Your task to perform on an android device: find photos in the google photos app Image 0: 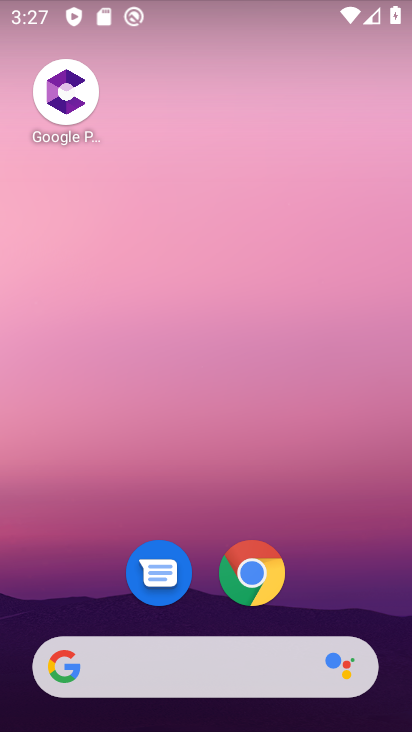
Step 0: click (301, 205)
Your task to perform on an android device: find photos in the google photos app Image 1: 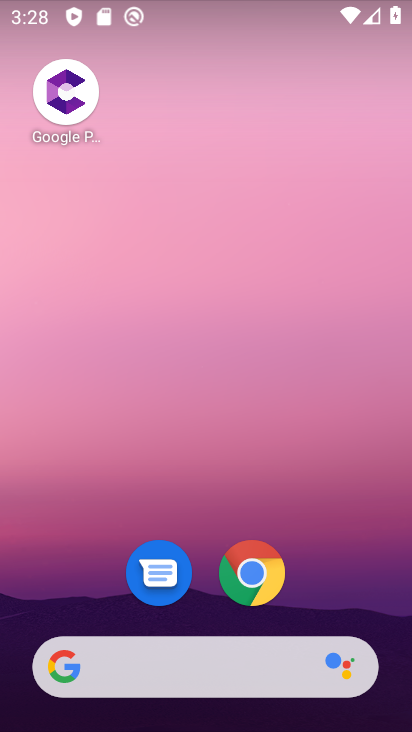
Step 1: drag from (340, 588) to (249, 278)
Your task to perform on an android device: find photos in the google photos app Image 2: 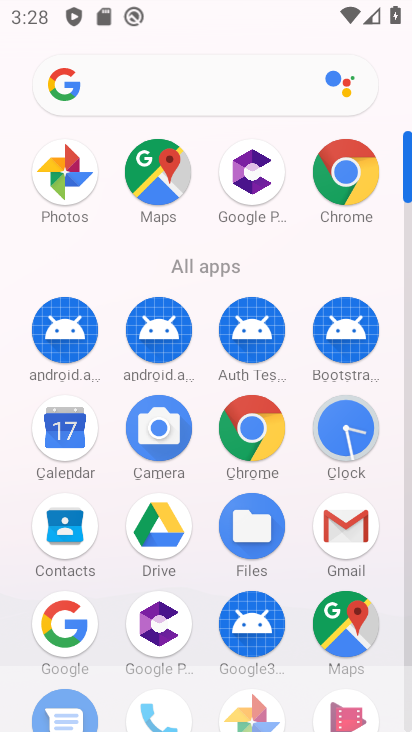
Step 2: click (78, 176)
Your task to perform on an android device: find photos in the google photos app Image 3: 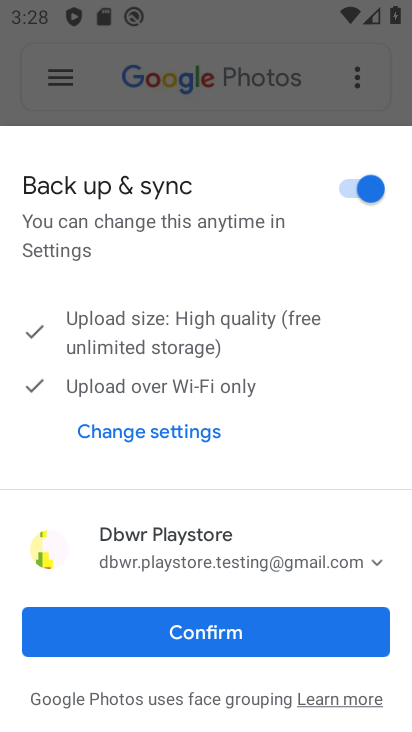
Step 3: click (212, 628)
Your task to perform on an android device: find photos in the google photos app Image 4: 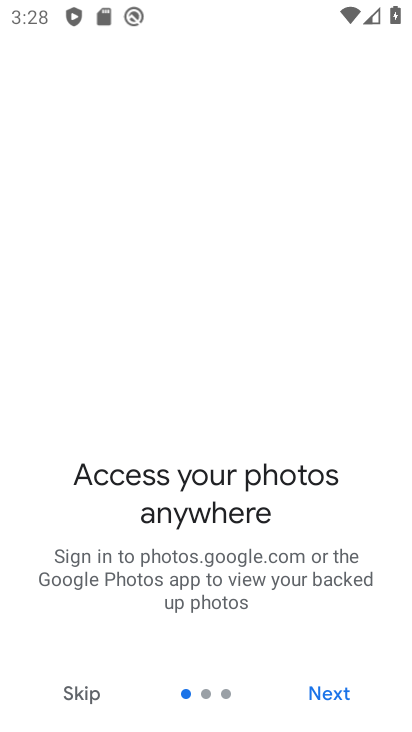
Step 4: click (323, 690)
Your task to perform on an android device: find photos in the google photos app Image 5: 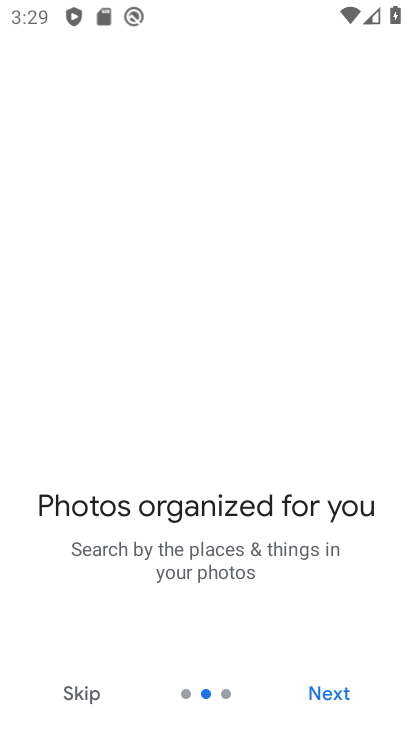
Step 5: click (323, 690)
Your task to perform on an android device: find photos in the google photos app Image 6: 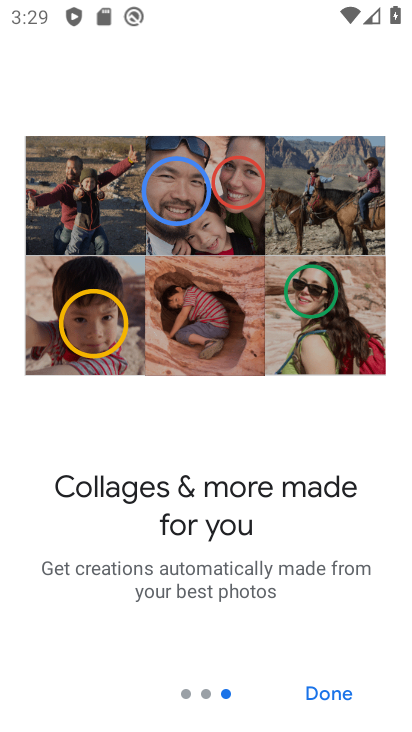
Step 6: click (323, 690)
Your task to perform on an android device: find photos in the google photos app Image 7: 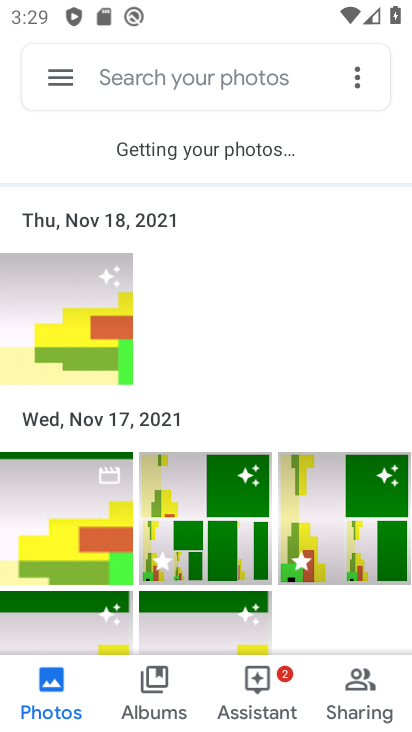
Step 7: task complete